Your task to perform on an android device: Open the calendar app, open the side menu, and click the "Day" option Image 0: 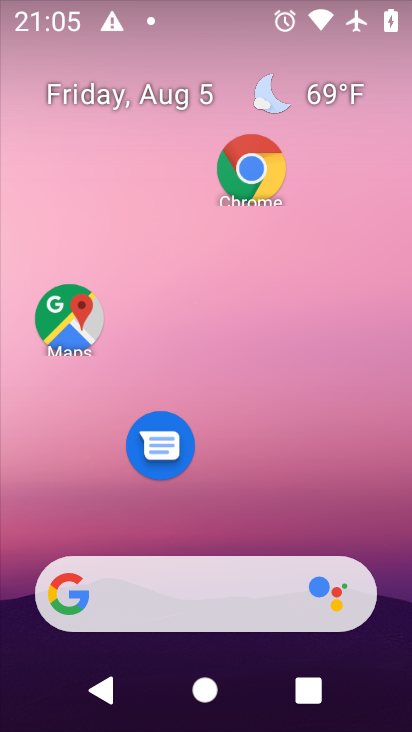
Step 0: drag from (194, 528) to (208, 20)
Your task to perform on an android device: Open the calendar app, open the side menu, and click the "Day" option Image 1: 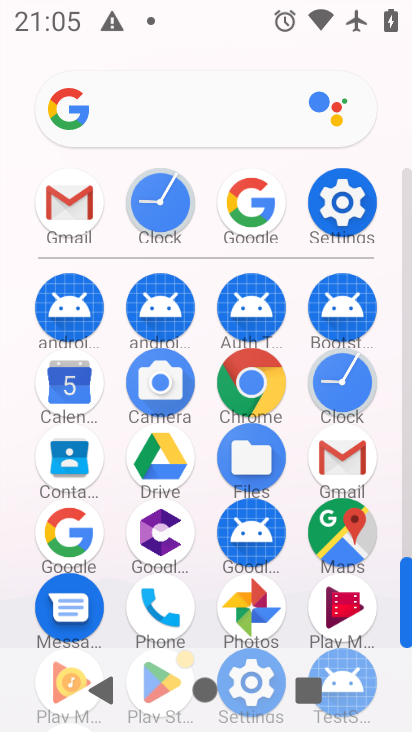
Step 1: click (59, 384)
Your task to perform on an android device: Open the calendar app, open the side menu, and click the "Day" option Image 2: 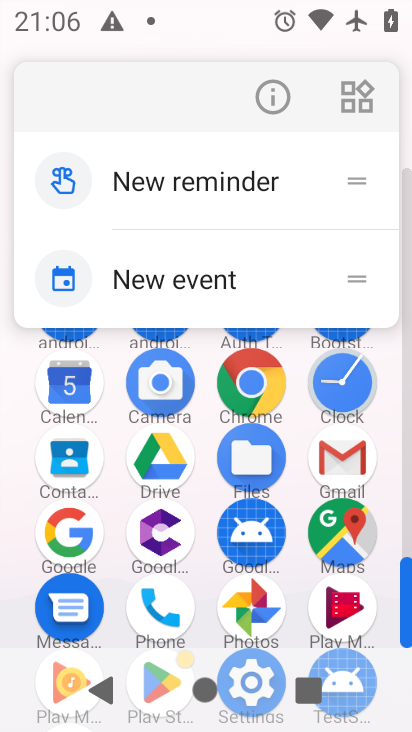
Step 2: click (59, 384)
Your task to perform on an android device: Open the calendar app, open the side menu, and click the "Day" option Image 3: 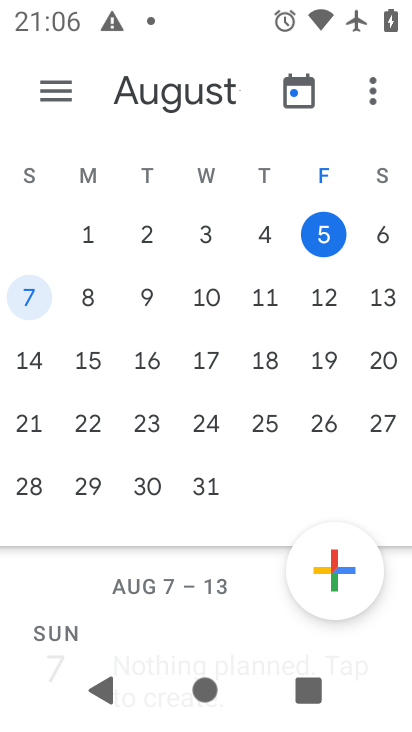
Step 3: click (48, 85)
Your task to perform on an android device: Open the calendar app, open the side menu, and click the "Day" option Image 4: 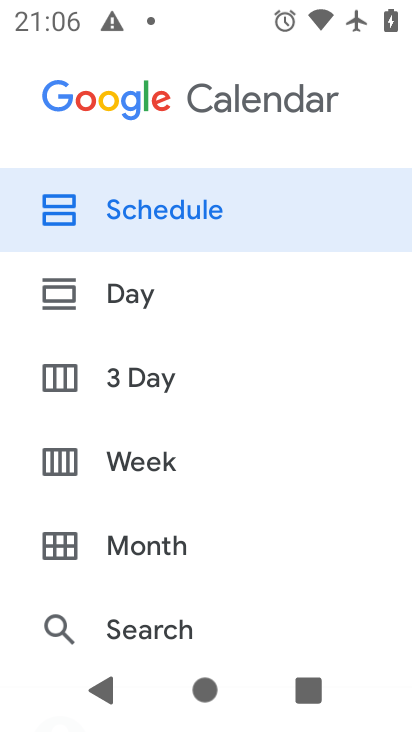
Step 4: click (147, 284)
Your task to perform on an android device: Open the calendar app, open the side menu, and click the "Day" option Image 5: 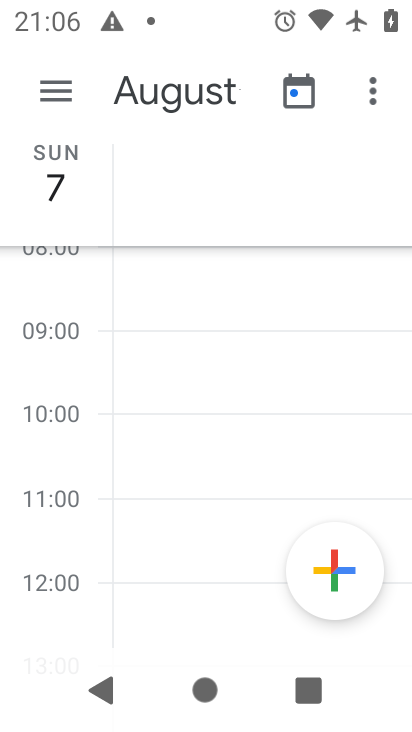
Step 5: task complete